Your task to perform on an android device: turn on location history Image 0: 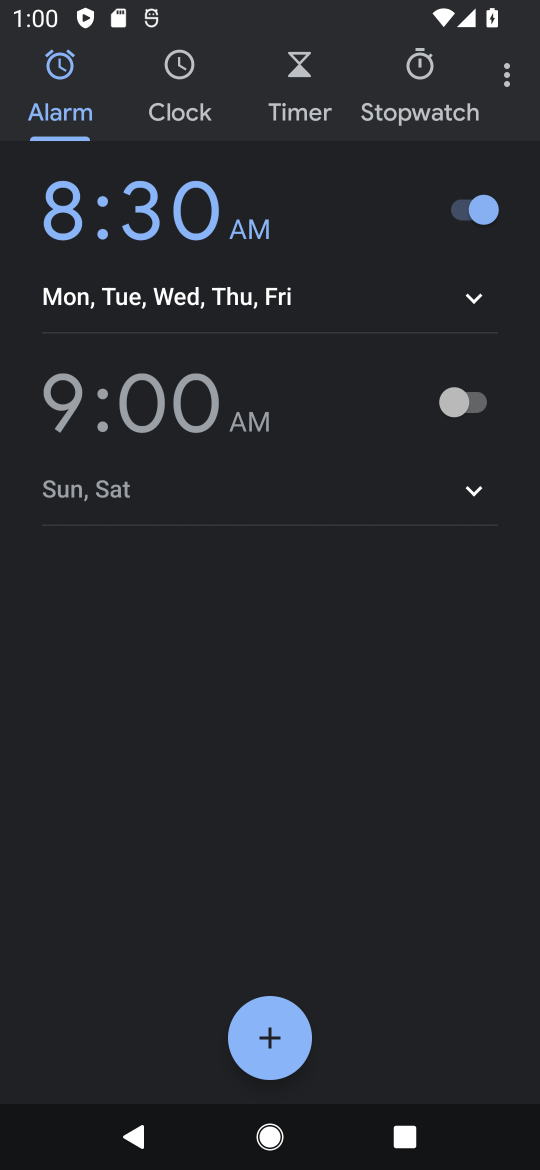
Step 0: press back button
Your task to perform on an android device: turn on location history Image 1: 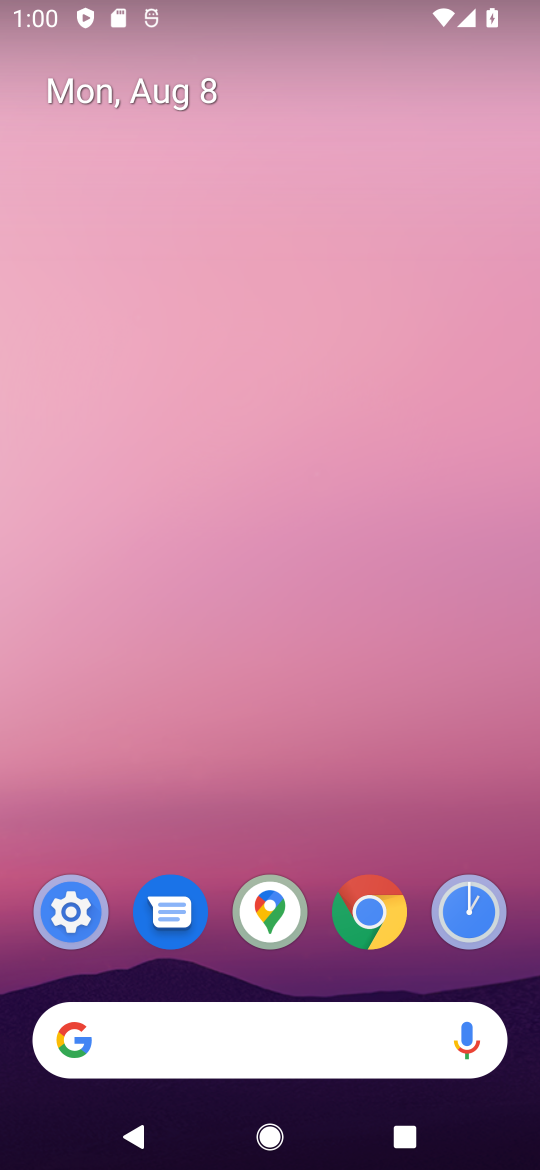
Step 1: click (73, 907)
Your task to perform on an android device: turn on location history Image 2: 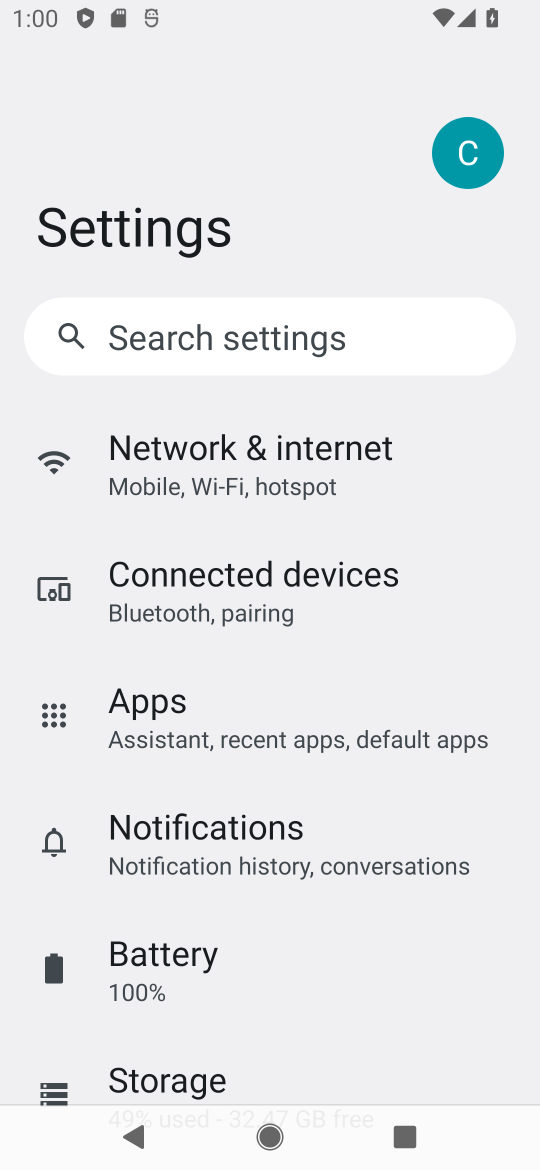
Step 2: drag from (267, 963) to (418, 251)
Your task to perform on an android device: turn on location history Image 3: 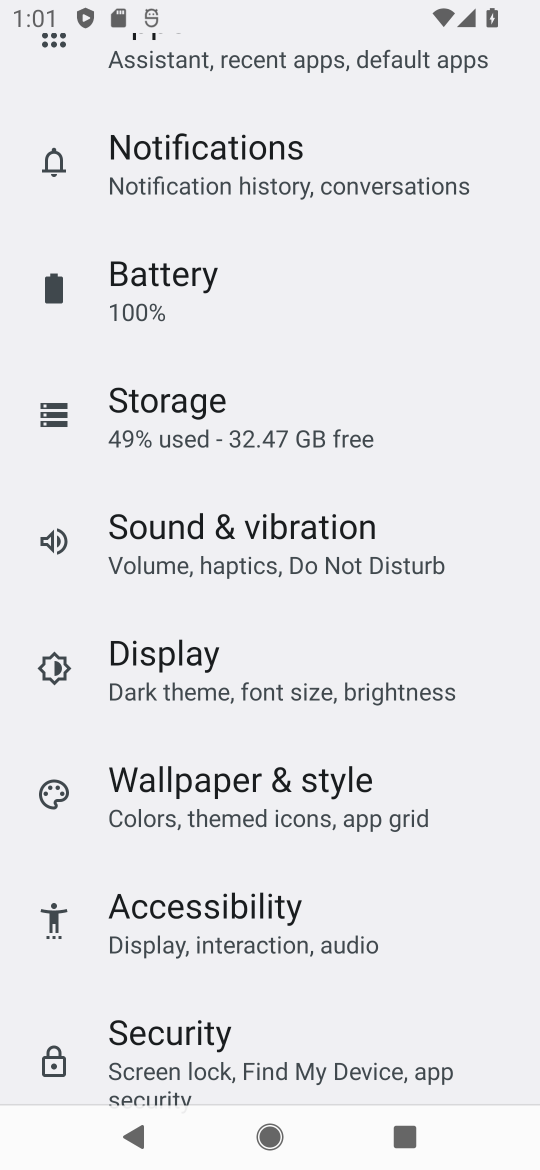
Step 3: drag from (245, 977) to (449, 36)
Your task to perform on an android device: turn on location history Image 4: 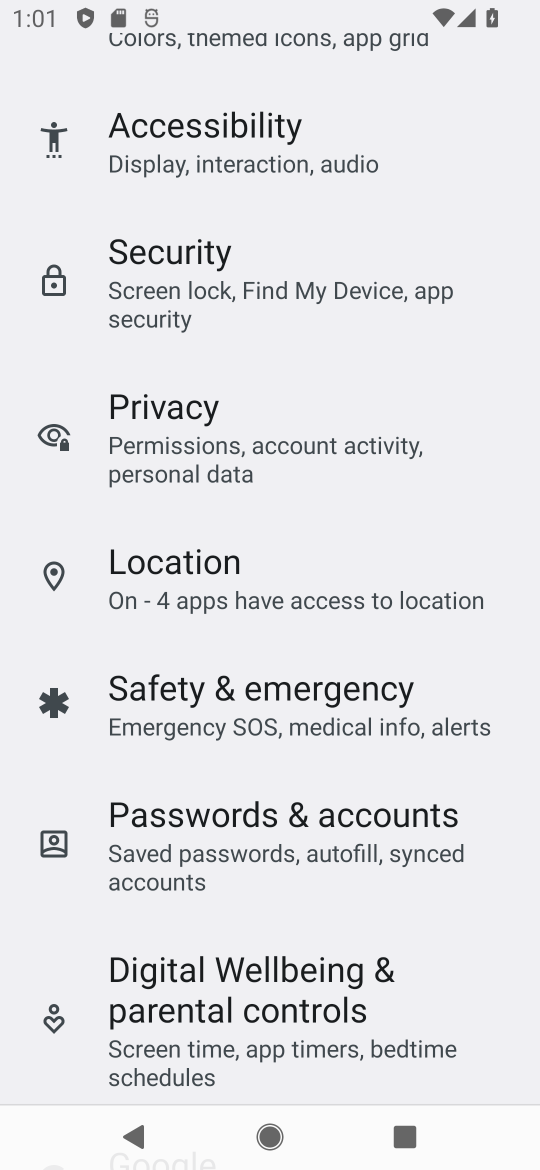
Step 4: click (204, 580)
Your task to perform on an android device: turn on location history Image 5: 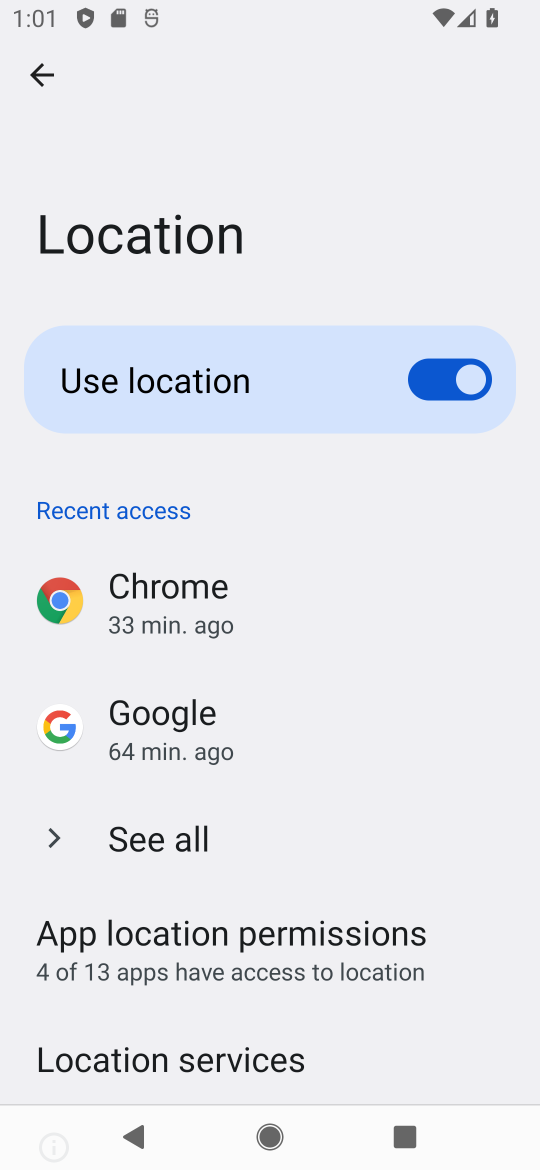
Step 5: drag from (245, 1000) to (411, 292)
Your task to perform on an android device: turn on location history Image 6: 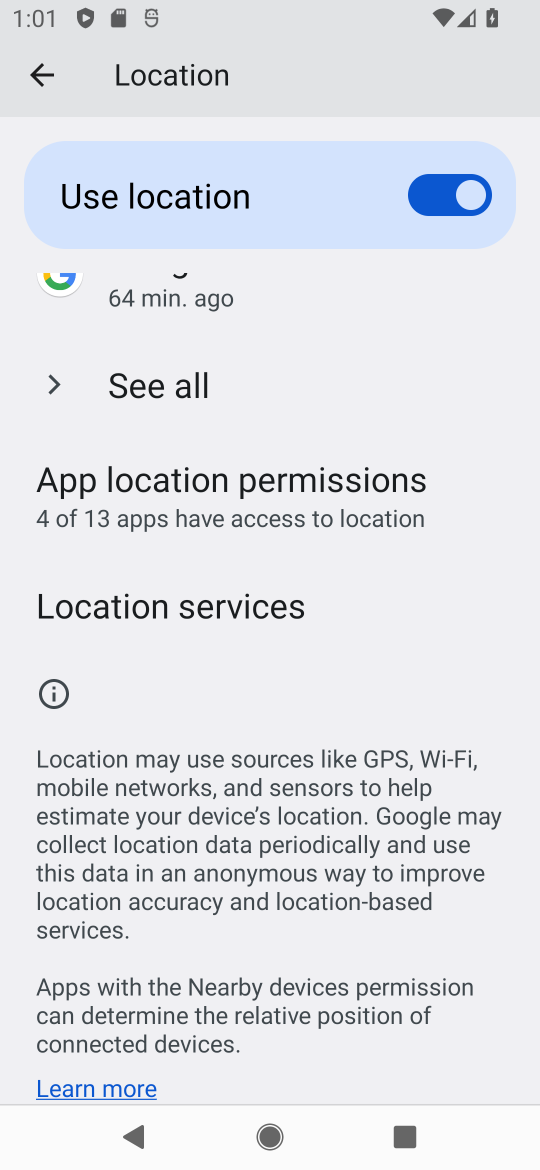
Step 6: click (194, 604)
Your task to perform on an android device: turn on location history Image 7: 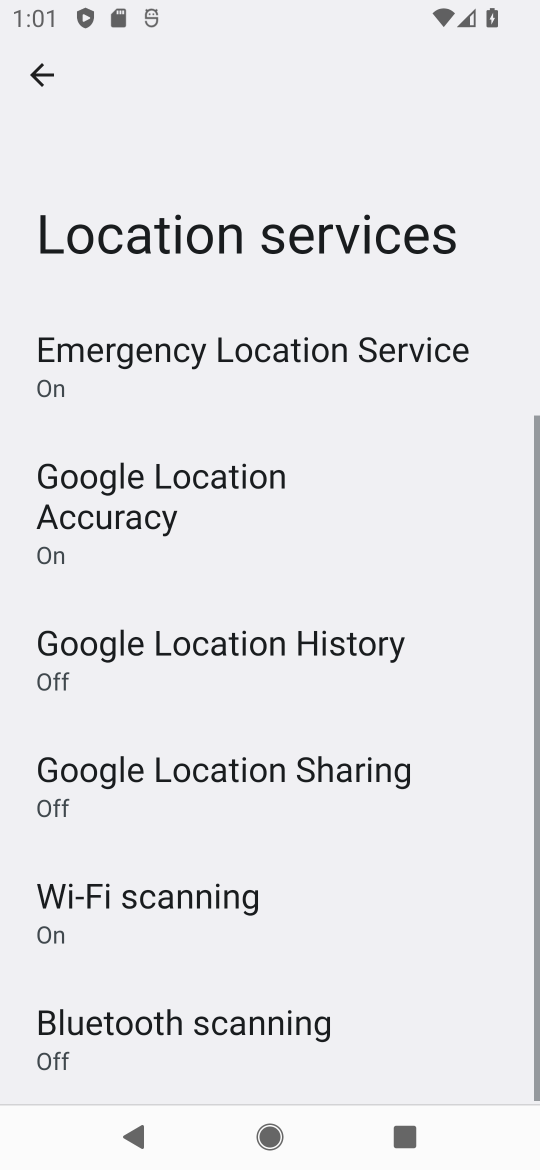
Step 7: click (183, 648)
Your task to perform on an android device: turn on location history Image 8: 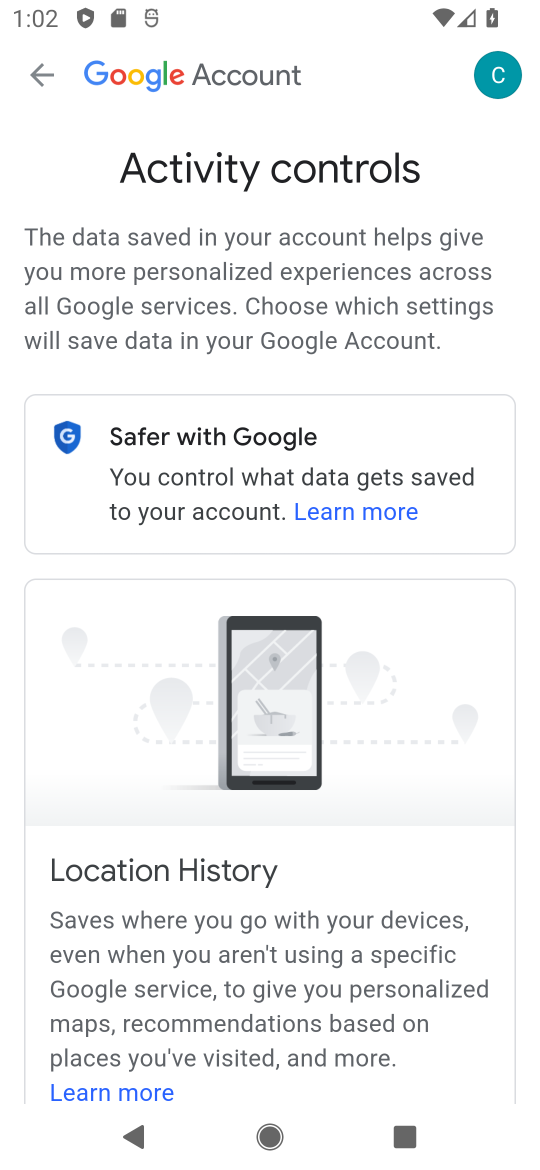
Step 8: drag from (285, 980) to (443, 128)
Your task to perform on an android device: turn on location history Image 9: 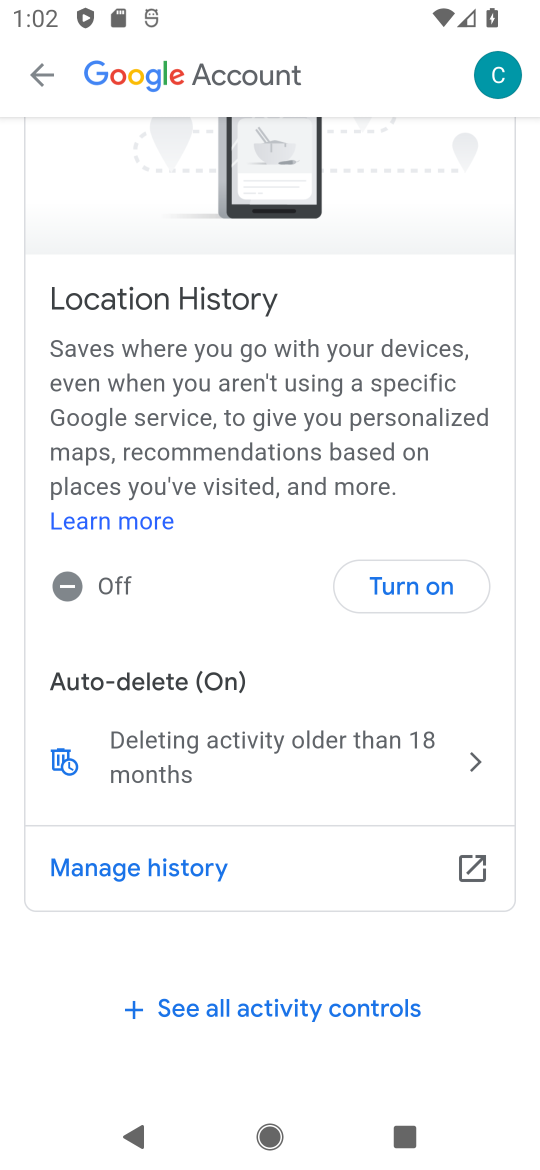
Step 9: click (411, 565)
Your task to perform on an android device: turn on location history Image 10: 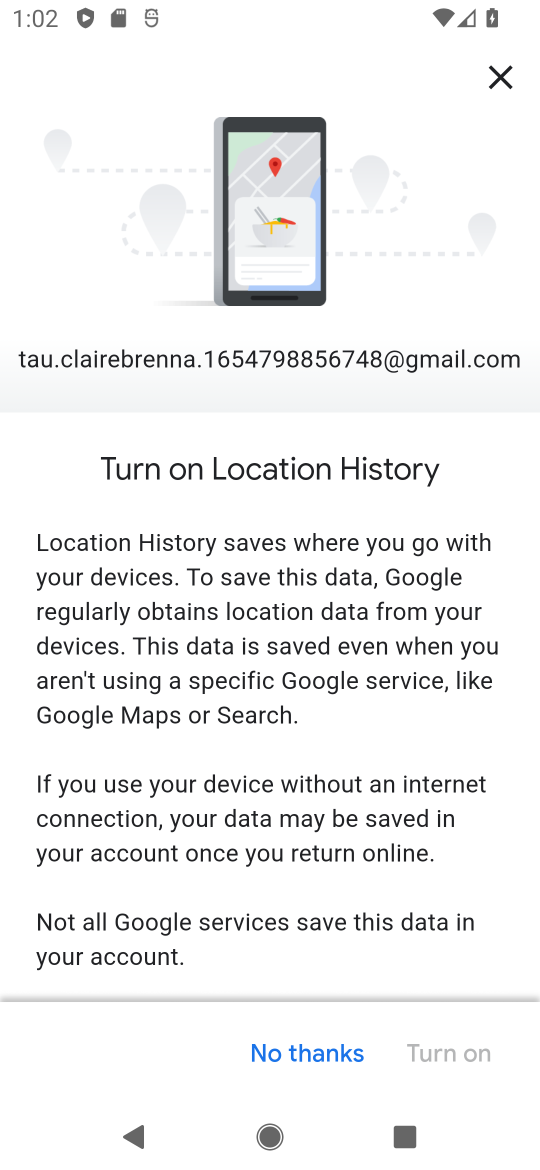
Step 10: drag from (296, 840) to (444, 179)
Your task to perform on an android device: turn on location history Image 11: 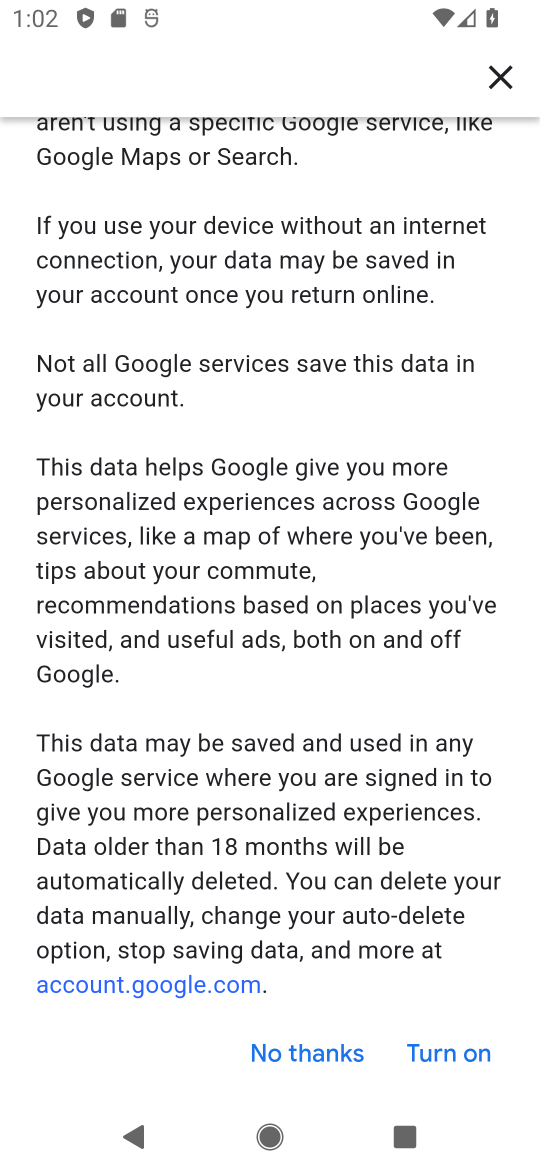
Step 11: drag from (322, 657) to (443, 0)
Your task to perform on an android device: turn on location history Image 12: 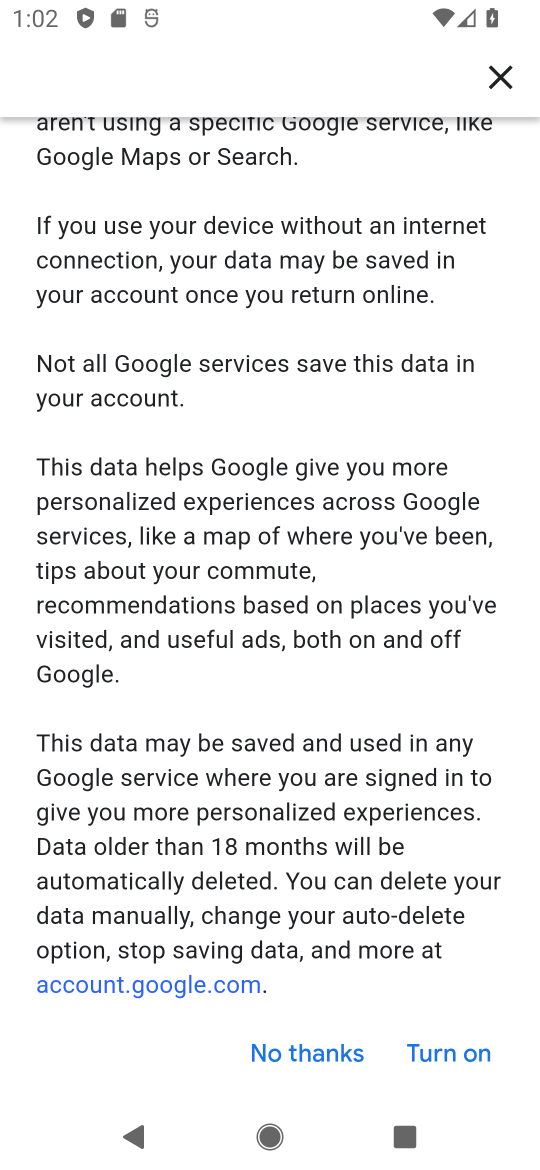
Step 12: click (443, 1051)
Your task to perform on an android device: turn on location history Image 13: 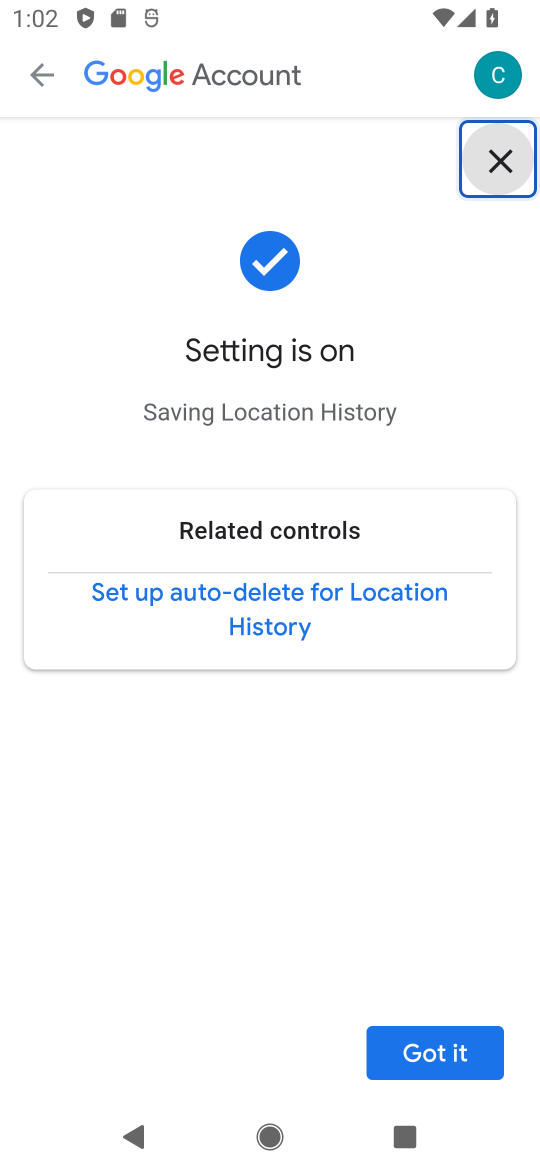
Step 13: click (413, 1055)
Your task to perform on an android device: turn on location history Image 14: 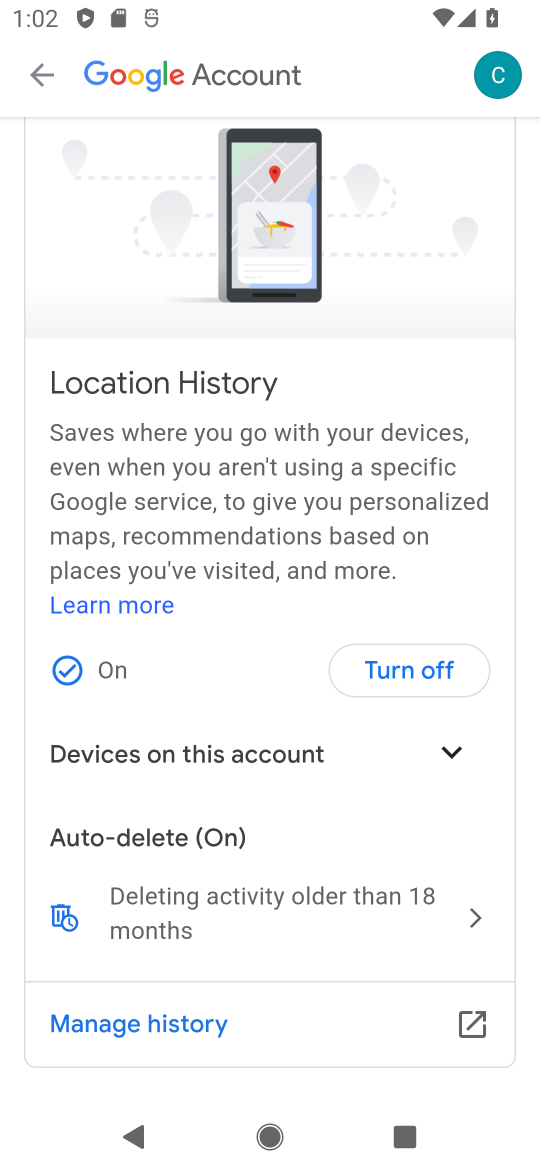
Step 14: task complete